Your task to perform on an android device: Search for vegetarian restaurants on Maps Image 0: 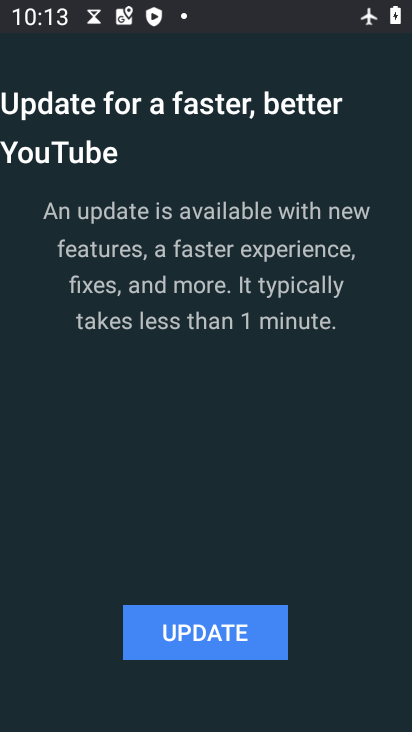
Step 0: press back button
Your task to perform on an android device: Search for vegetarian restaurants on Maps Image 1: 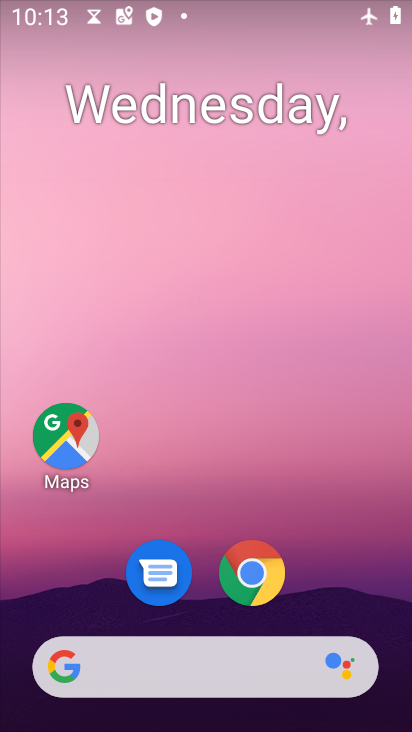
Step 1: click (86, 422)
Your task to perform on an android device: Search for vegetarian restaurants on Maps Image 2: 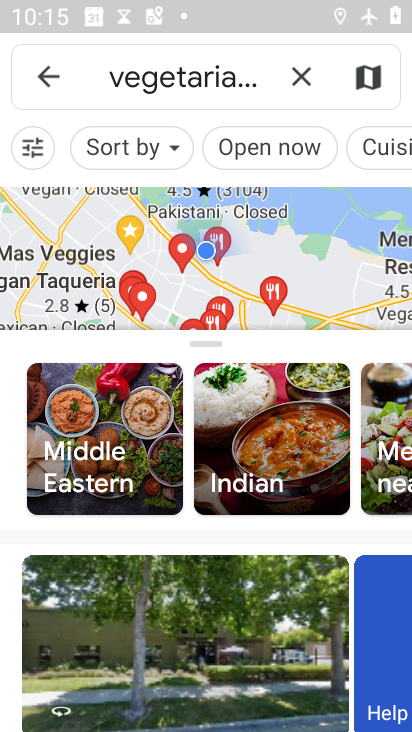
Step 2: task complete